Your task to perform on an android device: Open the phone app and click the voicemail tab. Image 0: 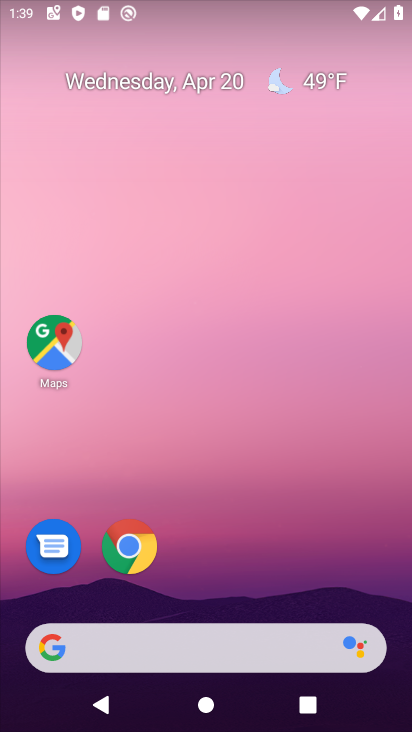
Step 0: drag from (233, 589) to (350, 176)
Your task to perform on an android device: Open the phone app and click the voicemail tab. Image 1: 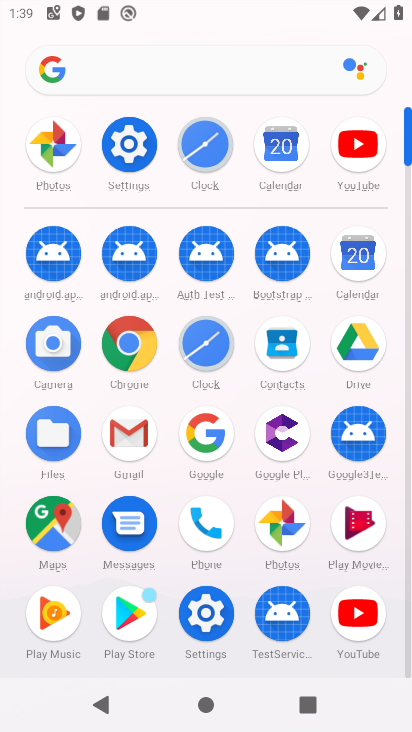
Step 1: click (213, 516)
Your task to perform on an android device: Open the phone app and click the voicemail tab. Image 2: 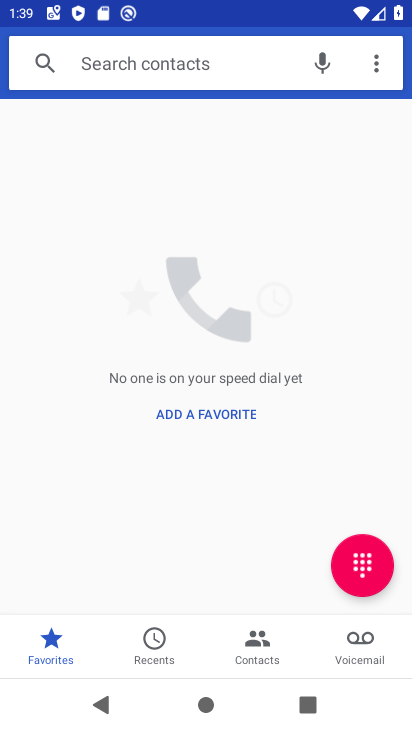
Step 2: click (347, 645)
Your task to perform on an android device: Open the phone app and click the voicemail tab. Image 3: 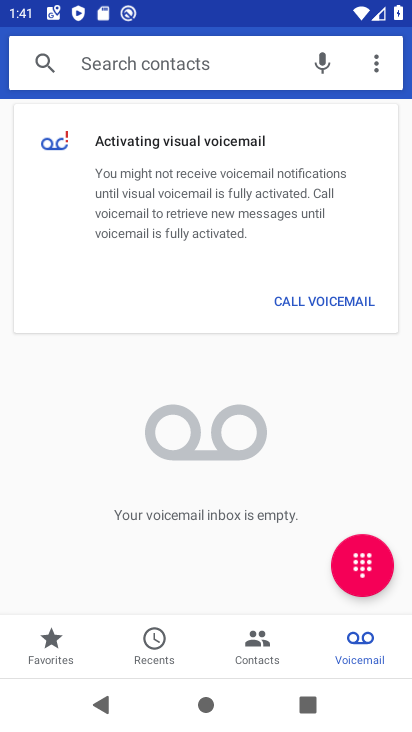
Step 3: task complete